Your task to perform on an android device: turn off notifications in google photos Image 0: 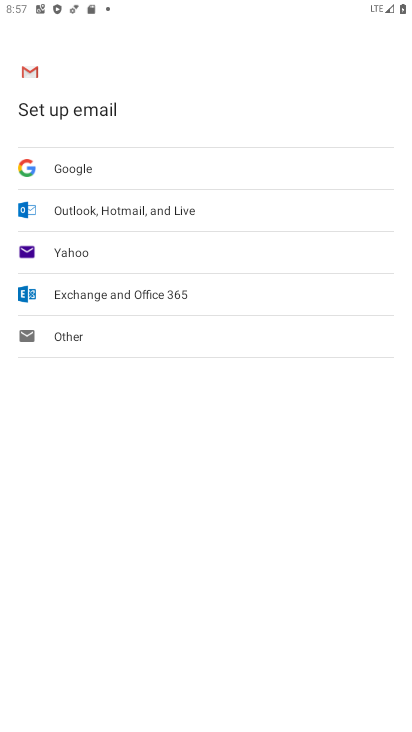
Step 0: press home button
Your task to perform on an android device: turn off notifications in google photos Image 1: 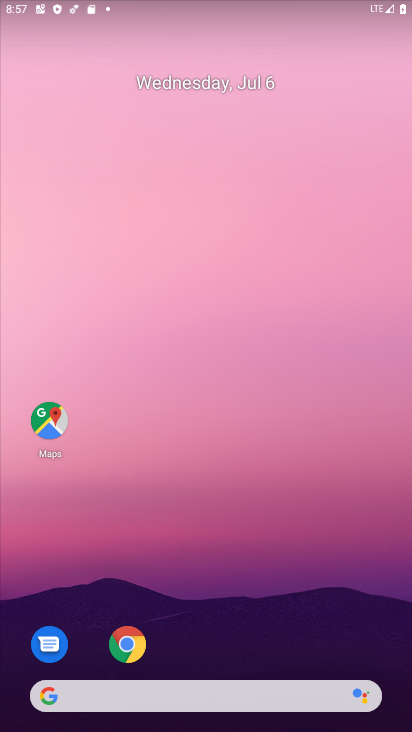
Step 1: drag from (210, 637) to (213, 140)
Your task to perform on an android device: turn off notifications in google photos Image 2: 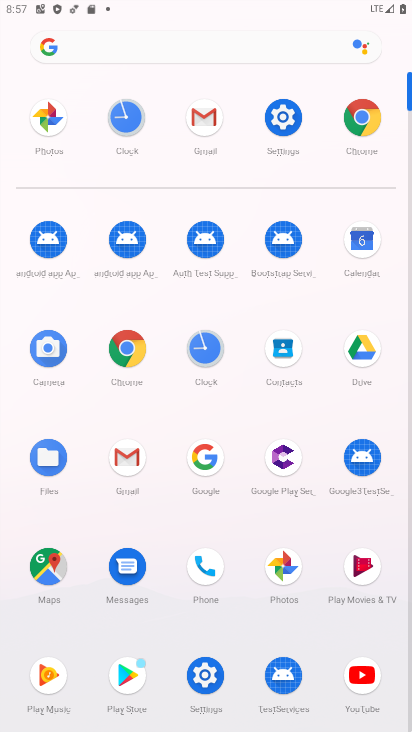
Step 2: click (272, 547)
Your task to perform on an android device: turn off notifications in google photos Image 3: 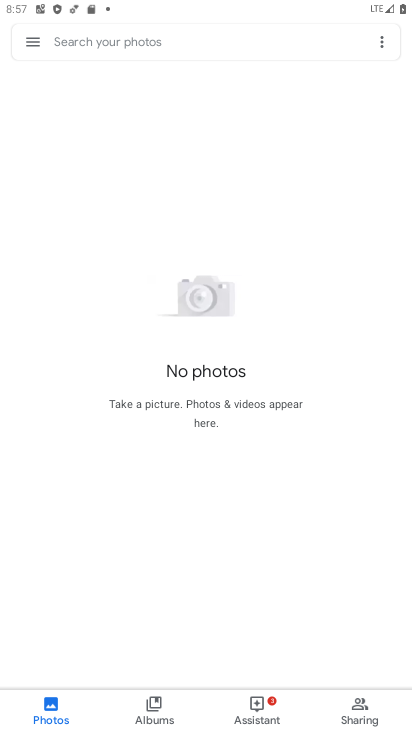
Step 3: click (381, 43)
Your task to perform on an android device: turn off notifications in google photos Image 4: 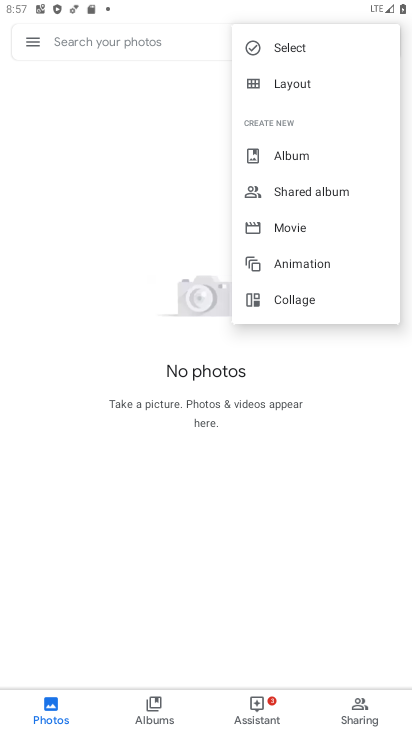
Step 4: click (131, 415)
Your task to perform on an android device: turn off notifications in google photos Image 5: 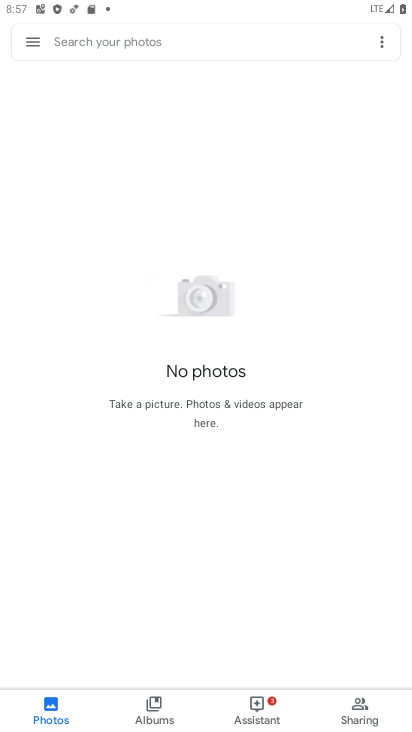
Step 5: click (23, 44)
Your task to perform on an android device: turn off notifications in google photos Image 6: 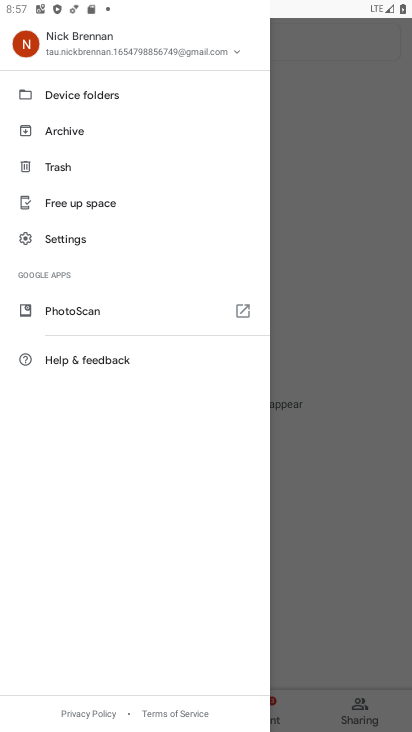
Step 6: click (69, 228)
Your task to perform on an android device: turn off notifications in google photos Image 7: 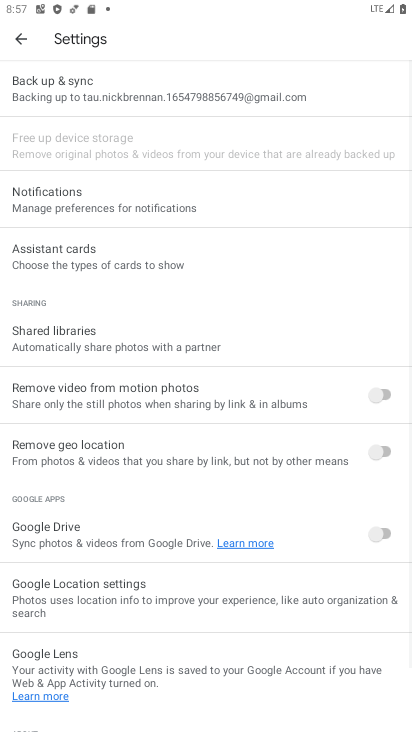
Step 7: click (104, 184)
Your task to perform on an android device: turn off notifications in google photos Image 8: 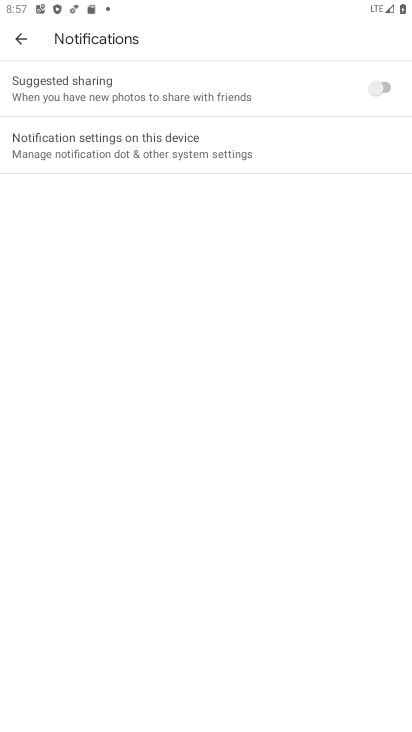
Step 8: click (333, 146)
Your task to perform on an android device: turn off notifications in google photos Image 9: 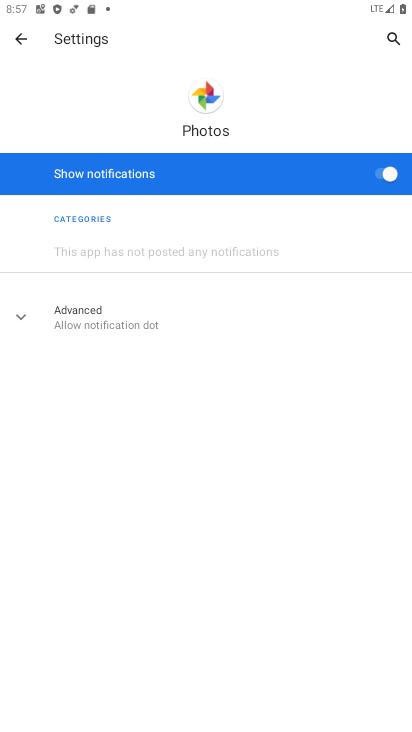
Step 9: click (370, 164)
Your task to perform on an android device: turn off notifications in google photos Image 10: 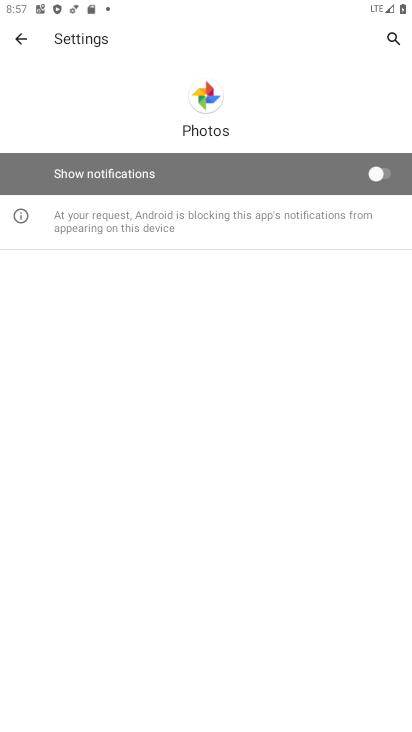
Step 10: task complete